Your task to perform on an android device: Open Chrome and go to the settings page Image 0: 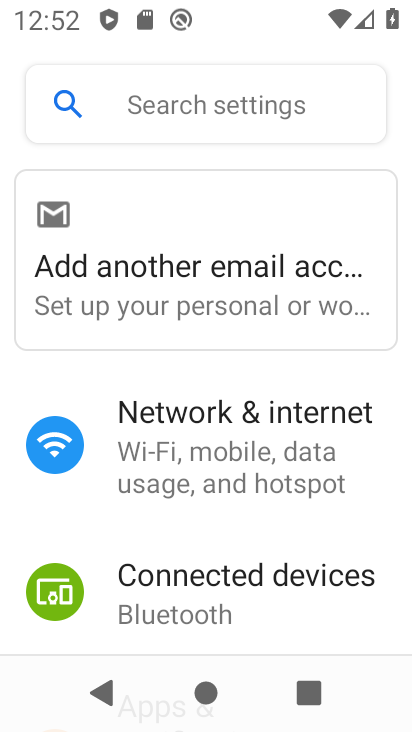
Step 0: press home button
Your task to perform on an android device: Open Chrome and go to the settings page Image 1: 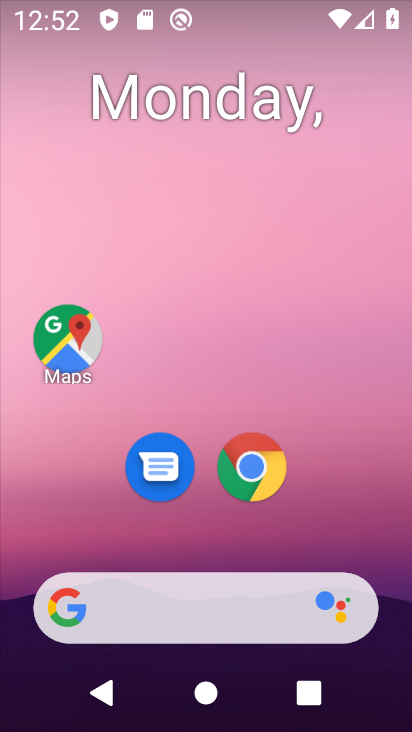
Step 1: click (263, 480)
Your task to perform on an android device: Open Chrome and go to the settings page Image 2: 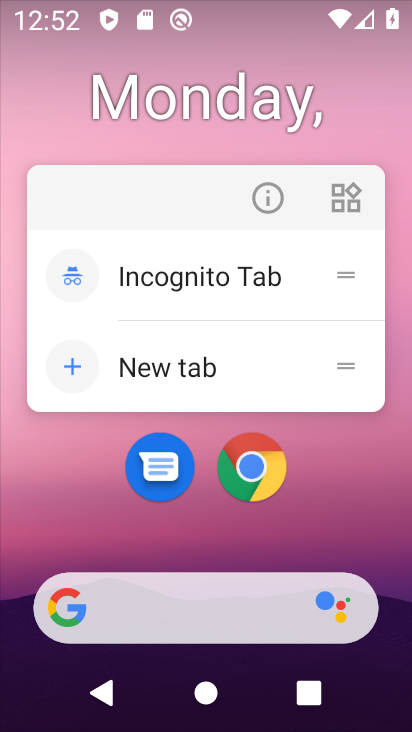
Step 2: click (263, 480)
Your task to perform on an android device: Open Chrome and go to the settings page Image 3: 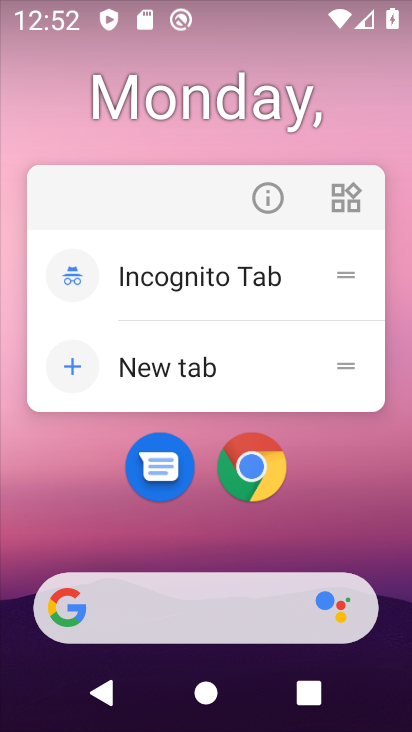
Step 3: click (249, 455)
Your task to perform on an android device: Open Chrome and go to the settings page Image 4: 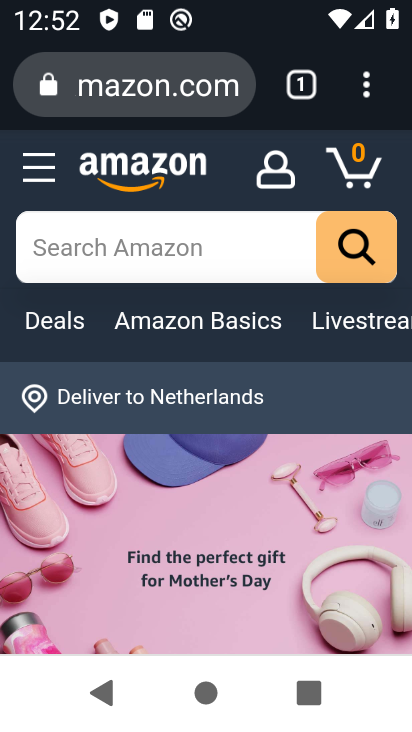
Step 4: click (369, 93)
Your task to perform on an android device: Open Chrome and go to the settings page Image 5: 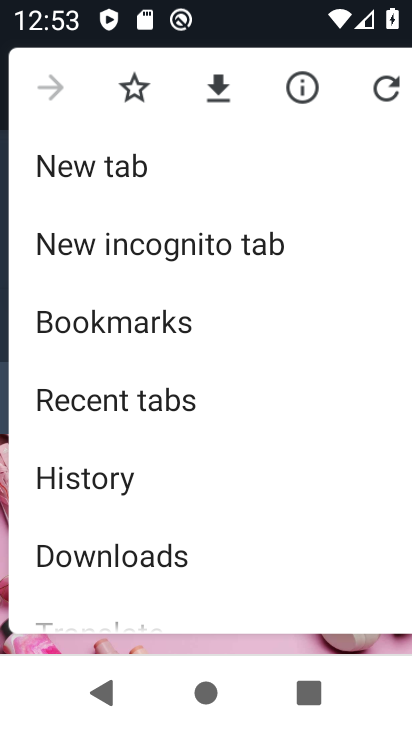
Step 5: drag from (179, 536) to (187, 355)
Your task to perform on an android device: Open Chrome and go to the settings page Image 6: 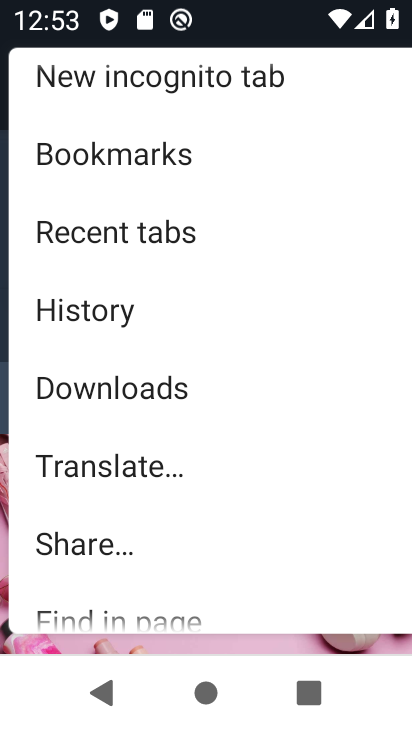
Step 6: drag from (133, 562) to (155, 357)
Your task to perform on an android device: Open Chrome and go to the settings page Image 7: 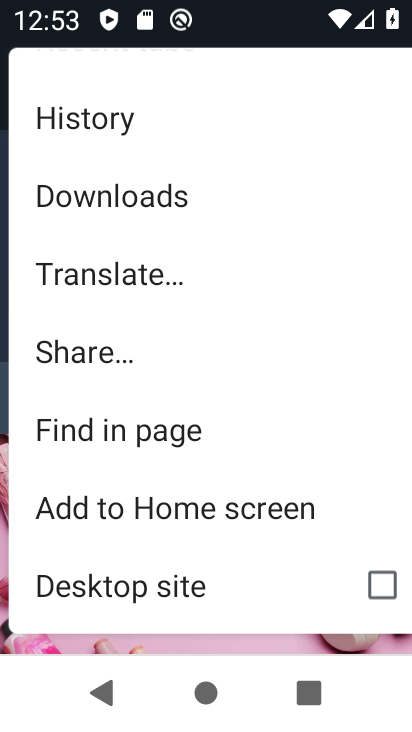
Step 7: drag from (125, 569) to (169, 393)
Your task to perform on an android device: Open Chrome and go to the settings page Image 8: 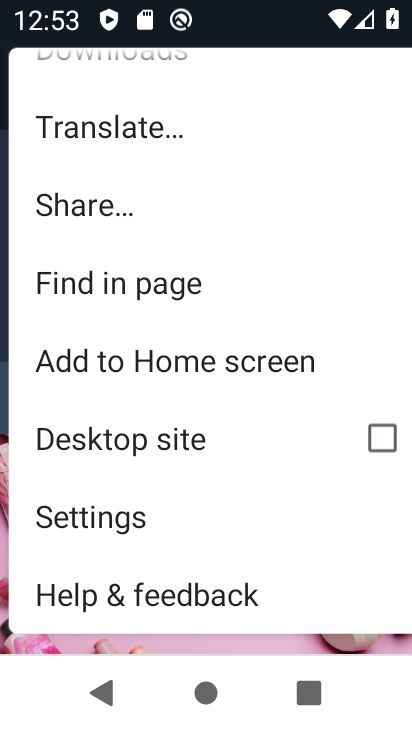
Step 8: click (146, 530)
Your task to perform on an android device: Open Chrome and go to the settings page Image 9: 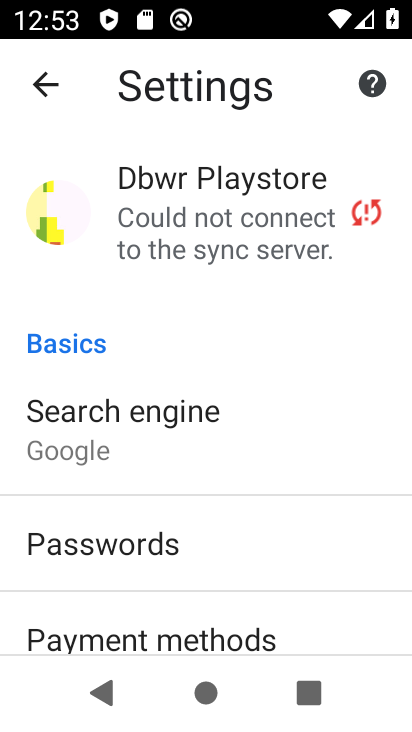
Step 9: task complete